Your task to perform on an android device: read, delete, or share a saved page in the chrome app Image 0: 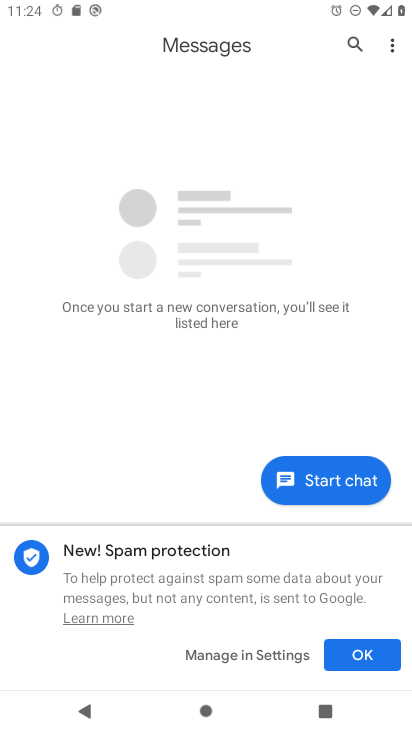
Step 0: press back button
Your task to perform on an android device: read, delete, or share a saved page in the chrome app Image 1: 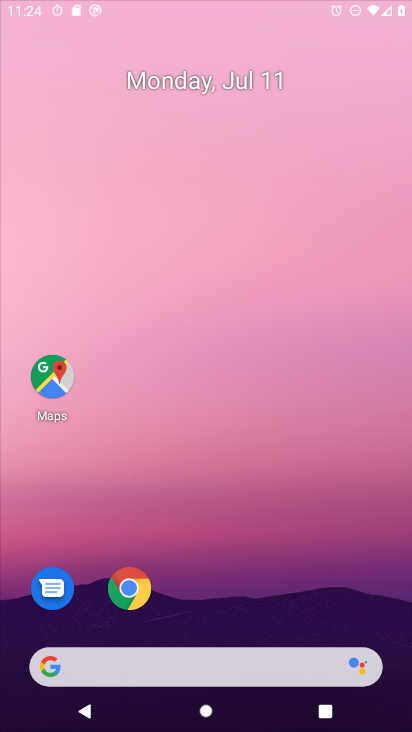
Step 1: press back button
Your task to perform on an android device: read, delete, or share a saved page in the chrome app Image 2: 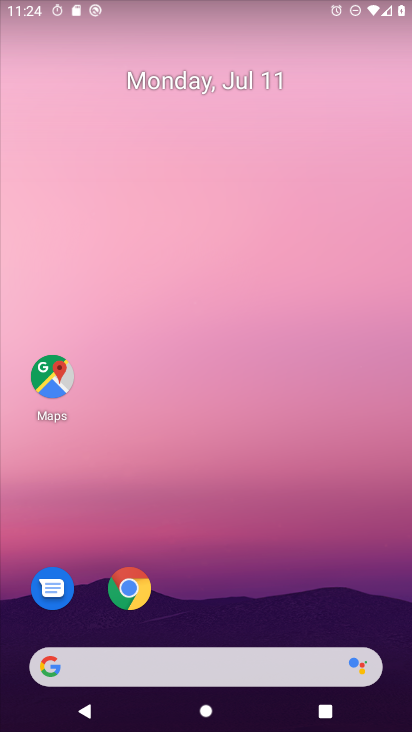
Step 2: click (125, 596)
Your task to perform on an android device: read, delete, or share a saved page in the chrome app Image 3: 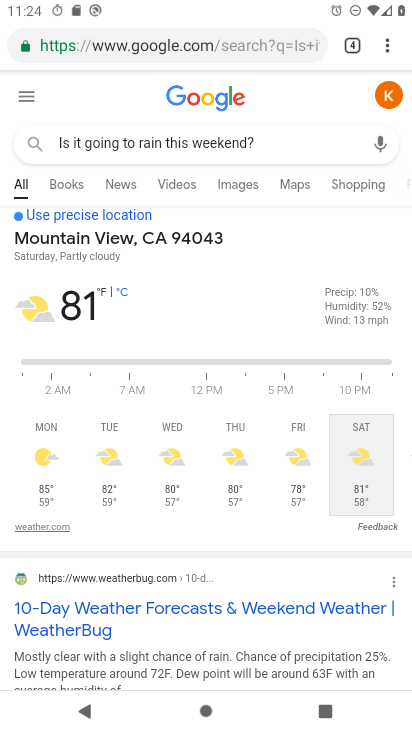
Step 3: click (391, 46)
Your task to perform on an android device: read, delete, or share a saved page in the chrome app Image 4: 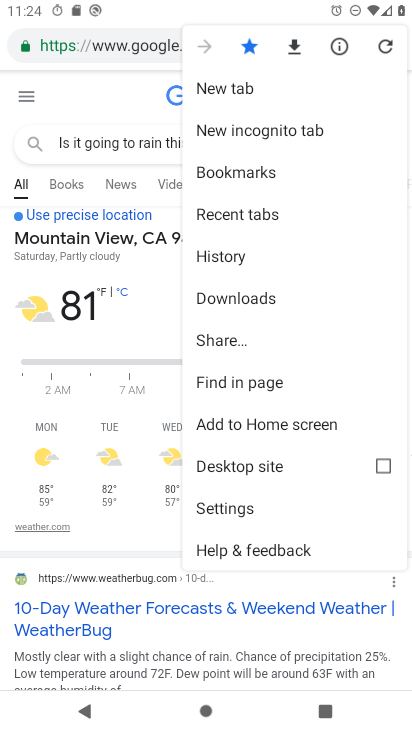
Step 4: click (218, 292)
Your task to perform on an android device: read, delete, or share a saved page in the chrome app Image 5: 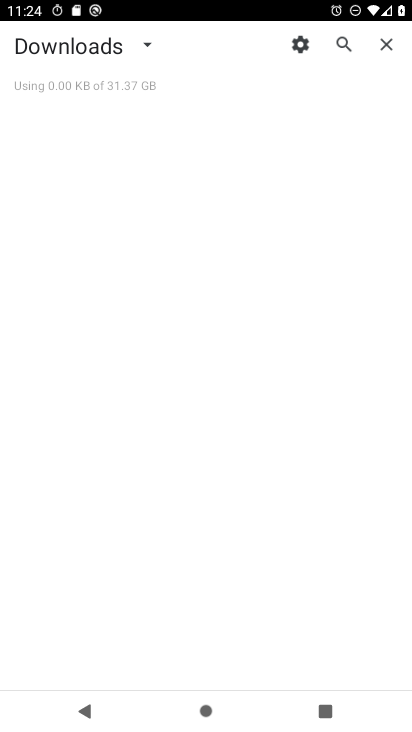
Step 5: click (146, 42)
Your task to perform on an android device: read, delete, or share a saved page in the chrome app Image 6: 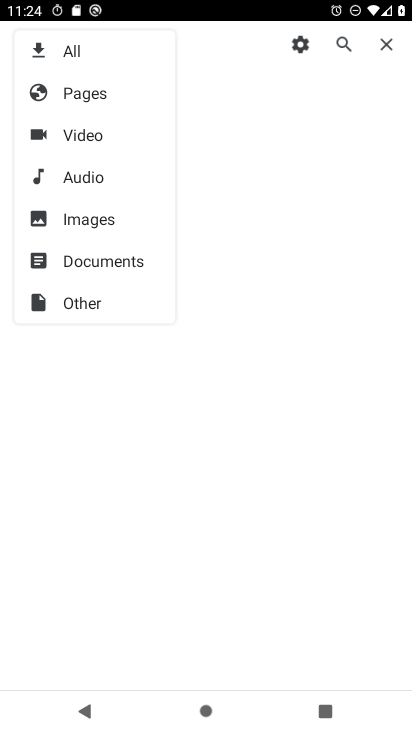
Step 6: click (95, 89)
Your task to perform on an android device: read, delete, or share a saved page in the chrome app Image 7: 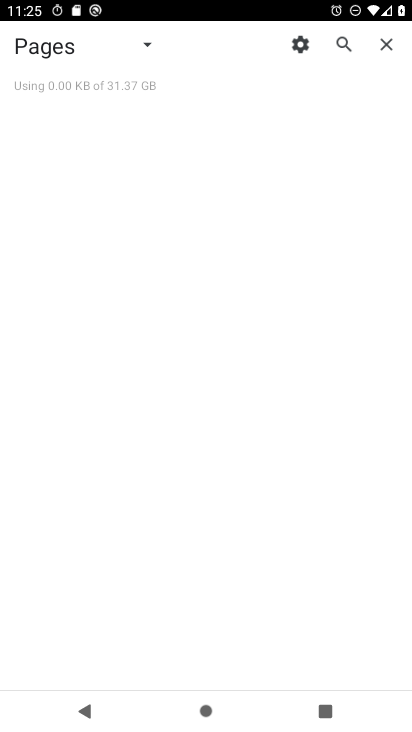
Step 7: task complete